Your task to perform on an android device: find photos in the google photos app Image 0: 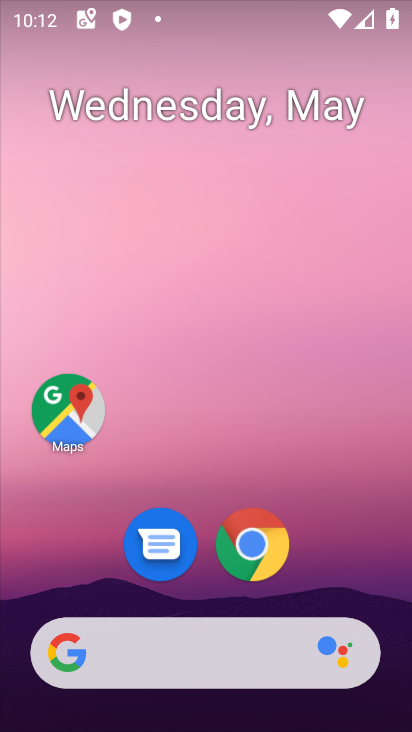
Step 0: drag from (327, 671) to (329, 117)
Your task to perform on an android device: find photos in the google photos app Image 1: 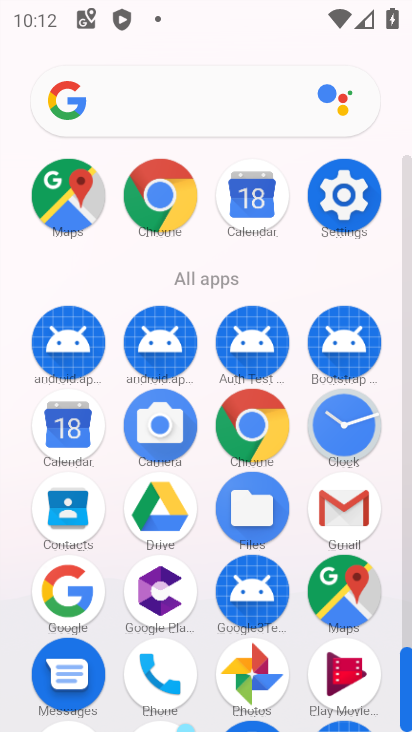
Step 1: click (168, 672)
Your task to perform on an android device: find photos in the google photos app Image 2: 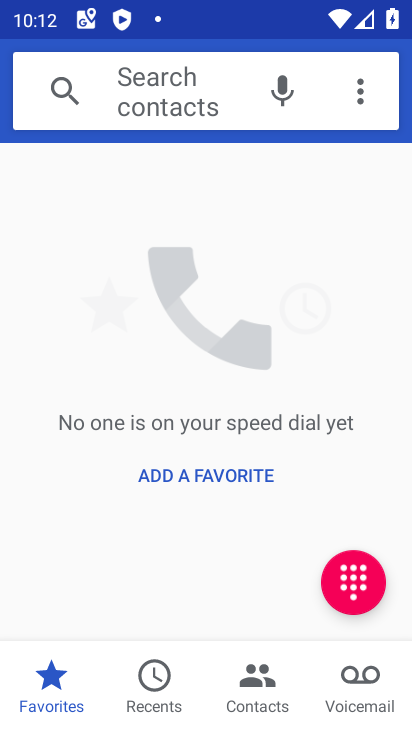
Step 2: press home button
Your task to perform on an android device: find photos in the google photos app Image 3: 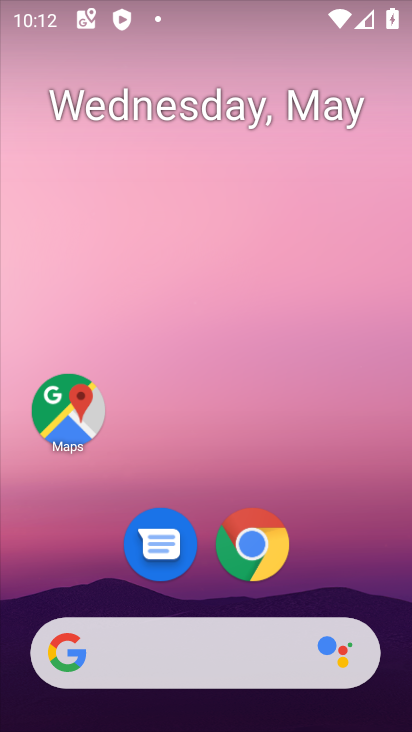
Step 3: drag from (284, 683) to (328, 84)
Your task to perform on an android device: find photos in the google photos app Image 4: 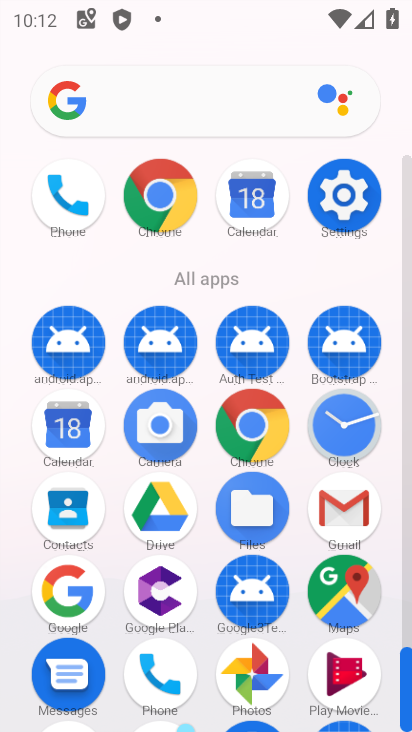
Step 4: click (271, 682)
Your task to perform on an android device: find photos in the google photos app Image 5: 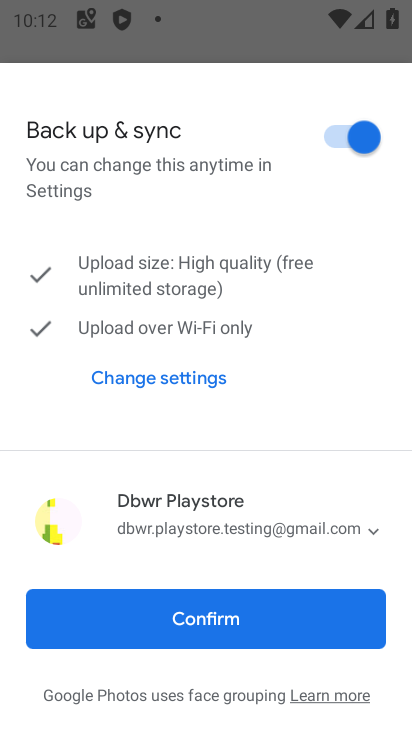
Step 5: click (231, 624)
Your task to perform on an android device: find photos in the google photos app Image 6: 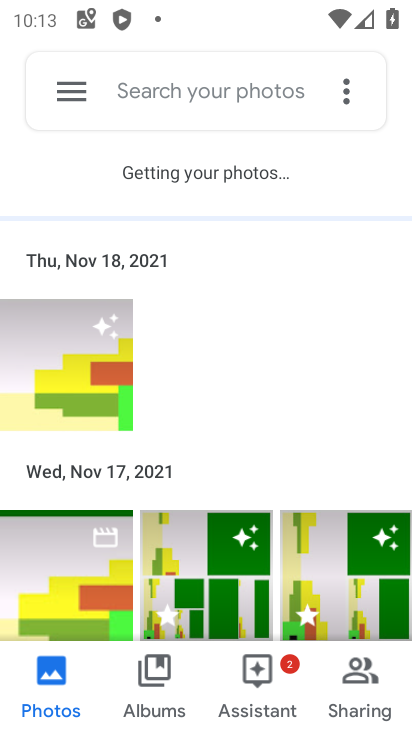
Step 6: task complete